Your task to perform on an android device: Clear the cart on amazon. Search for "razer deathadder" on amazon, select the first entry, and add it to the cart. Image 0: 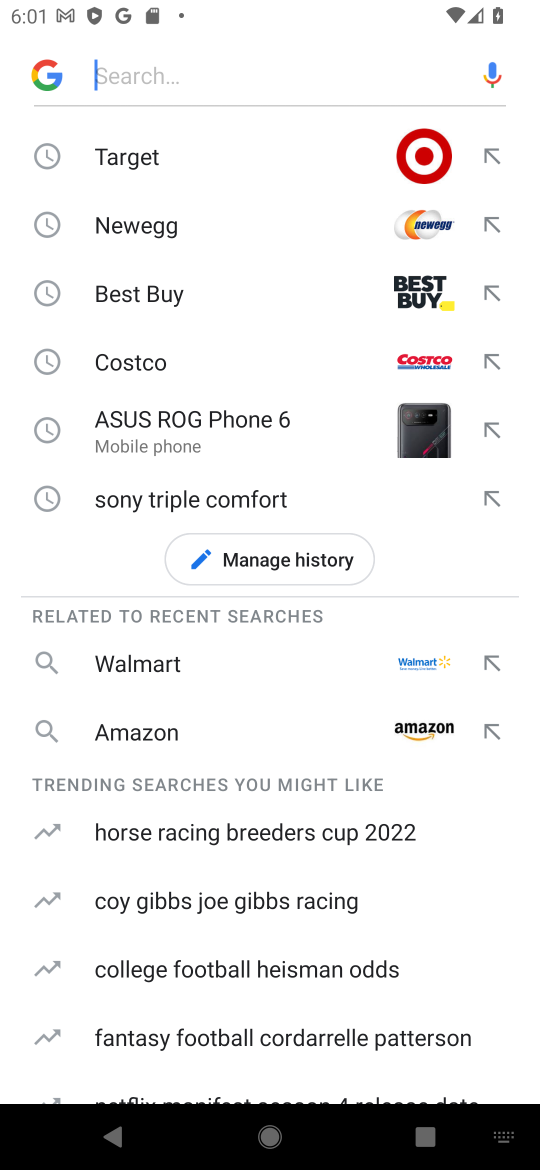
Step 0: click (316, 730)
Your task to perform on an android device: Clear the cart on amazon. Search for "razer deathadder" on amazon, select the first entry, and add it to the cart. Image 1: 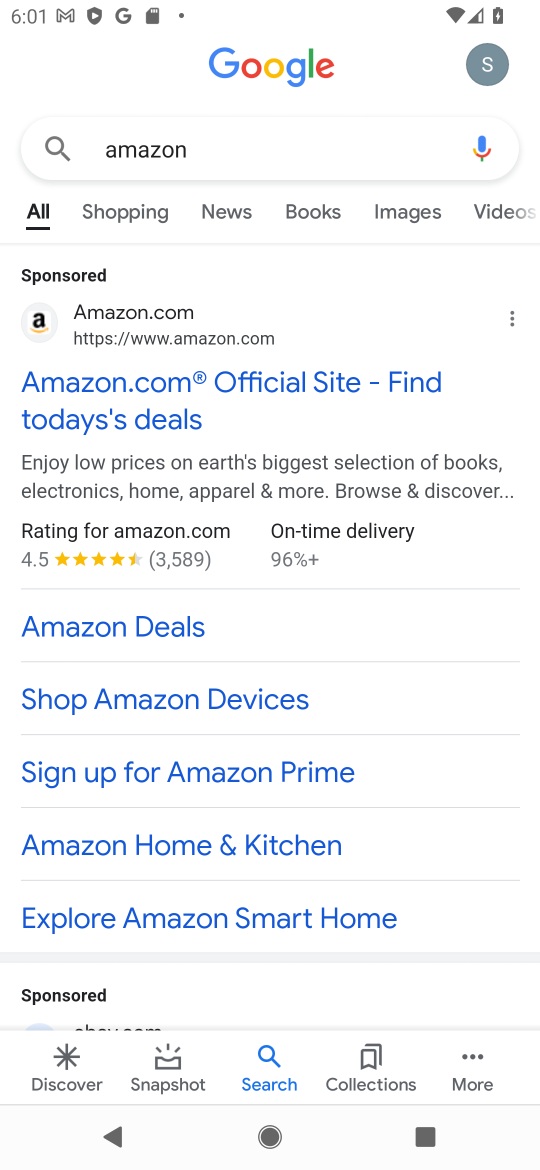
Step 1: click (177, 388)
Your task to perform on an android device: Clear the cart on amazon. Search for "razer deathadder" on amazon, select the first entry, and add it to the cart. Image 2: 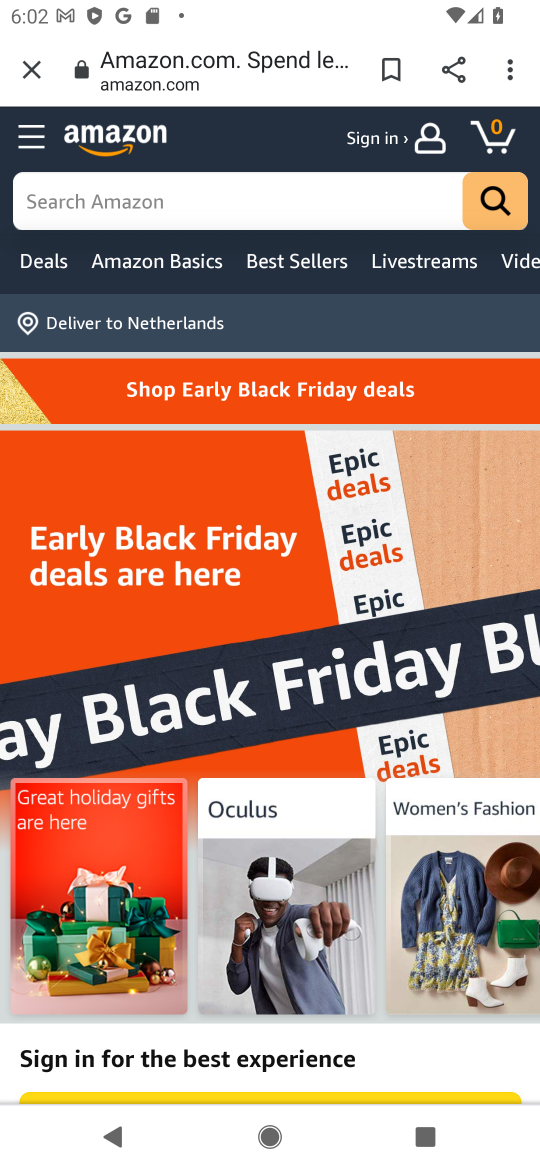
Step 2: task complete